Your task to perform on an android device: Open notification settings Image 0: 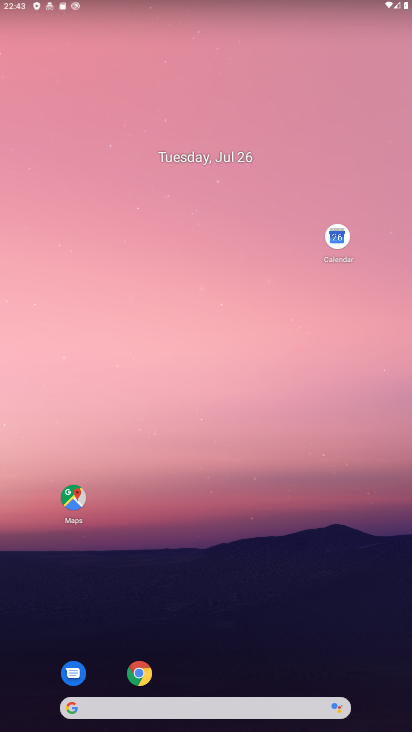
Step 0: drag from (288, 564) to (312, 92)
Your task to perform on an android device: Open notification settings Image 1: 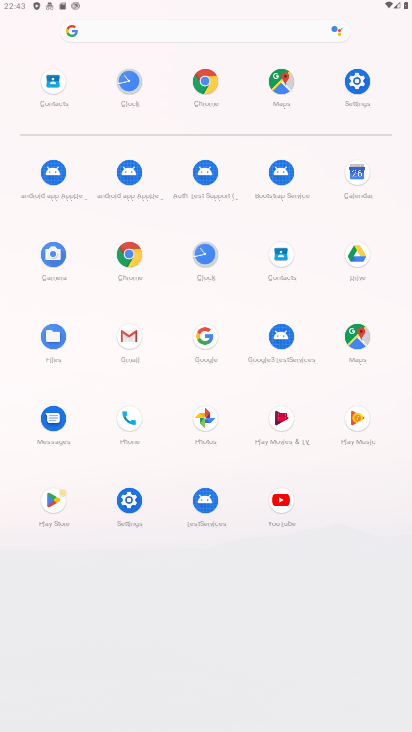
Step 1: click (360, 84)
Your task to perform on an android device: Open notification settings Image 2: 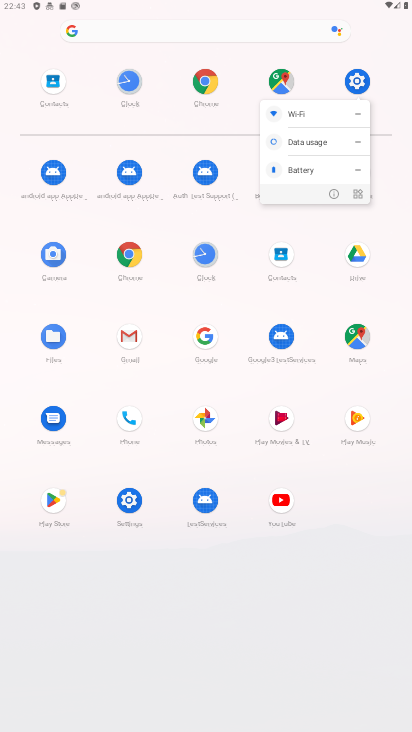
Step 2: click (355, 95)
Your task to perform on an android device: Open notification settings Image 3: 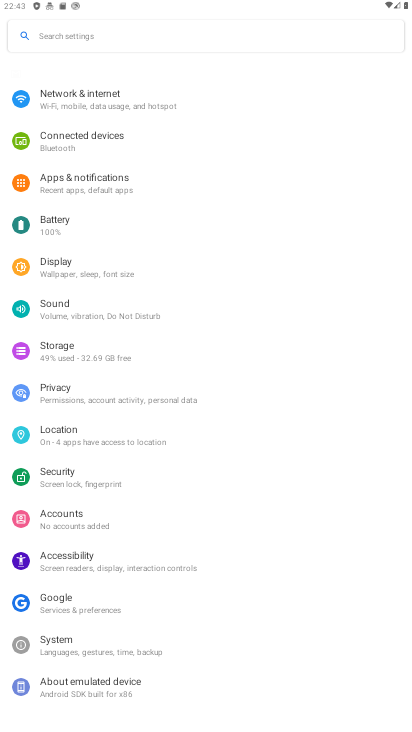
Step 3: click (351, 87)
Your task to perform on an android device: Open notification settings Image 4: 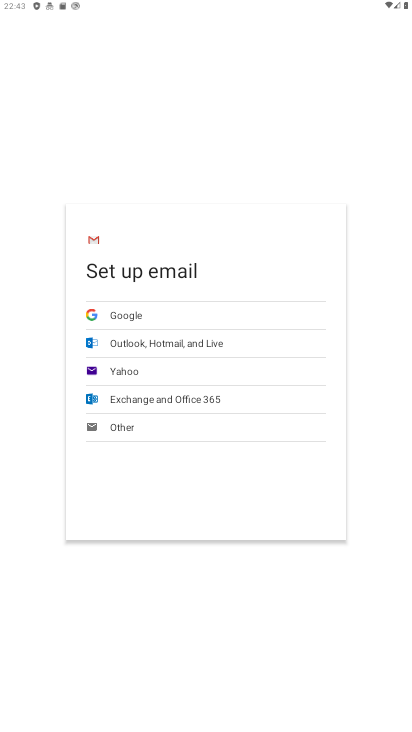
Step 4: press back button
Your task to perform on an android device: Open notification settings Image 5: 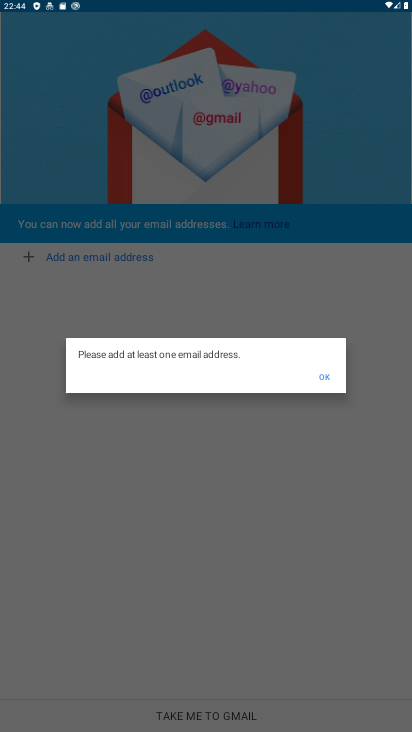
Step 5: click (324, 374)
Your task to perform on an android device: Open notification settings Image 6: 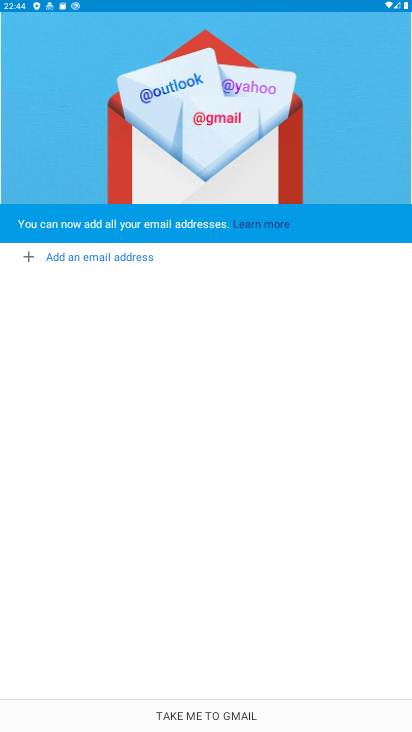
Step 6: click (228, 709)
Your task to perform on an android device: Open notification settings Image 7: 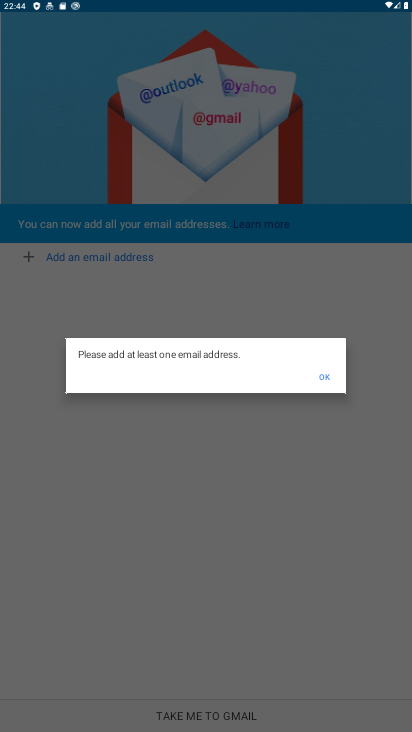
Step 7: task complete